Your task to perform on an android device: Turn on the flashlight Image 0: 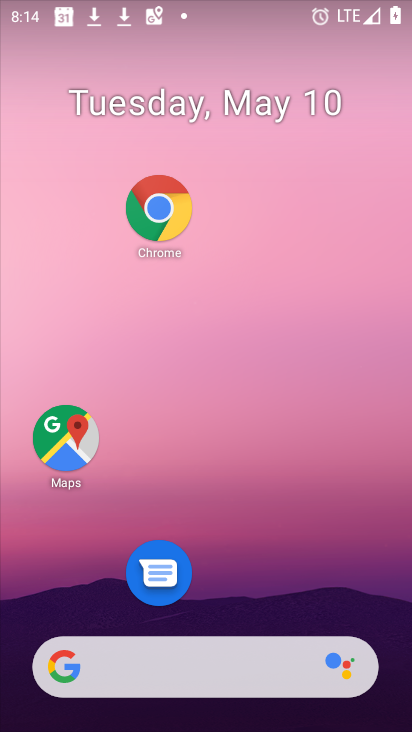
Step 0: drag from (315, 702) to (294, 294)
Your task to perform on an android device: Turn on the flashlight Image 1: 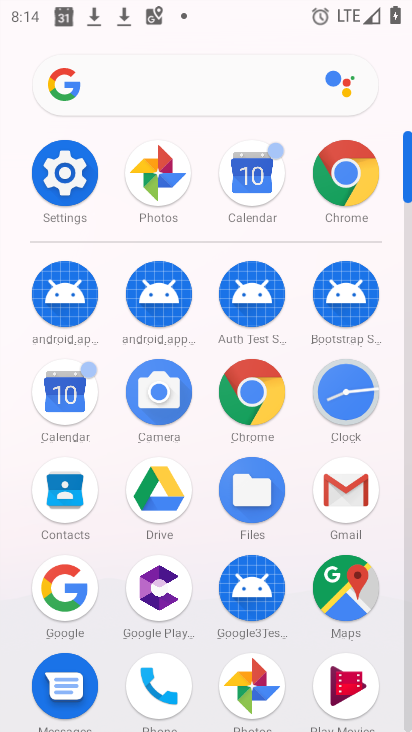
Step 1: click (66, 182)
Your task to perform on an android device: Turn on the flashlight Image 2: 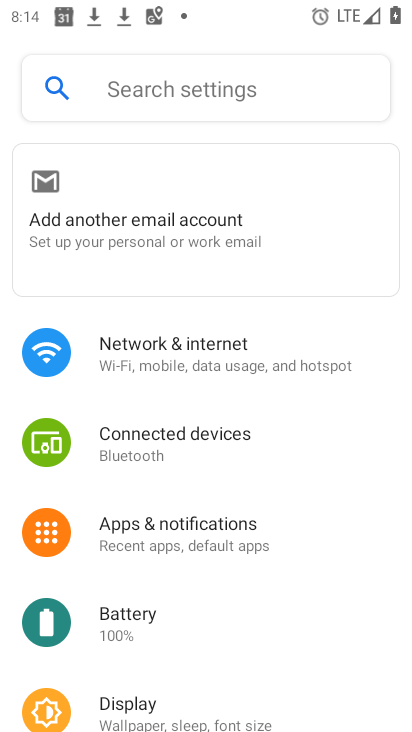
Step 2: click (133, 82)
Your task to perform on an android device: Turn on the flashlight Image 3: 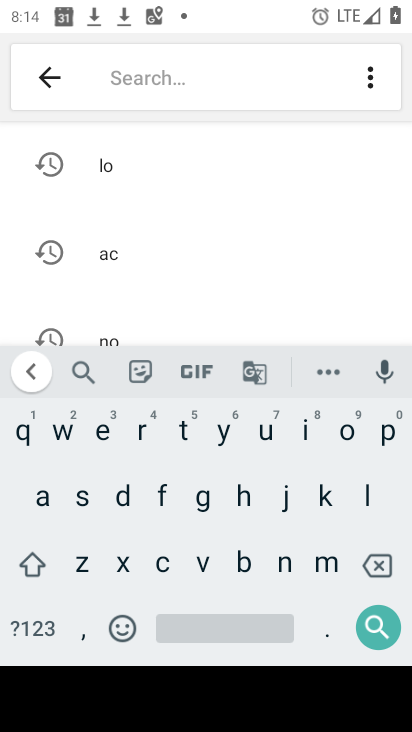
Step 3: click (165, 521)
Your task to perform on an android device: Turn on the flashlight Image 4: 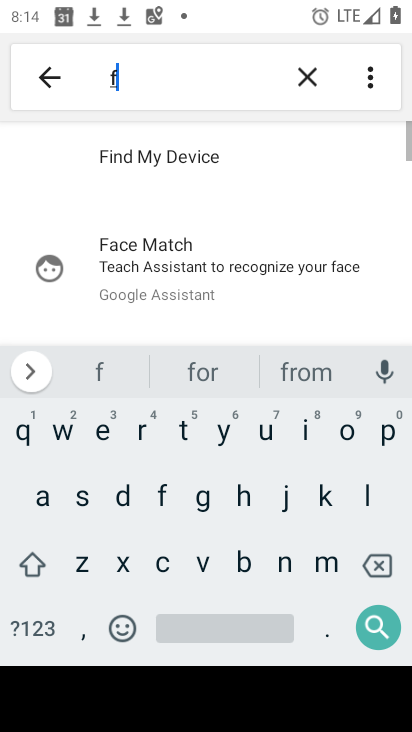
Step 4: click (376, 495)
Your task to perform on an android device: Turn on the flashlight Image 5: 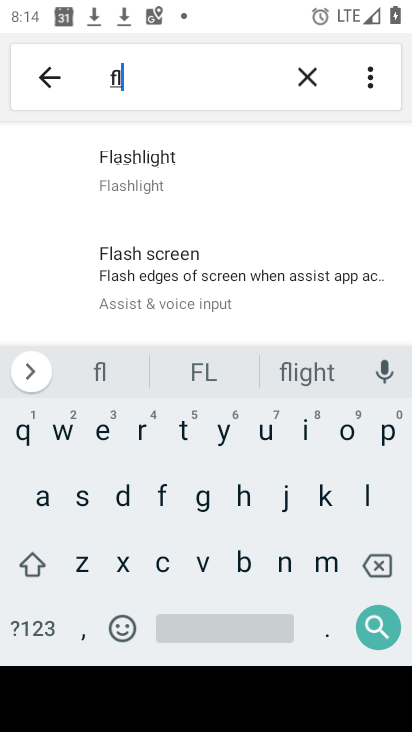
Step 5: click (131, 173)
Your task to perform on an android device: Turn on the flashlight Image 6: 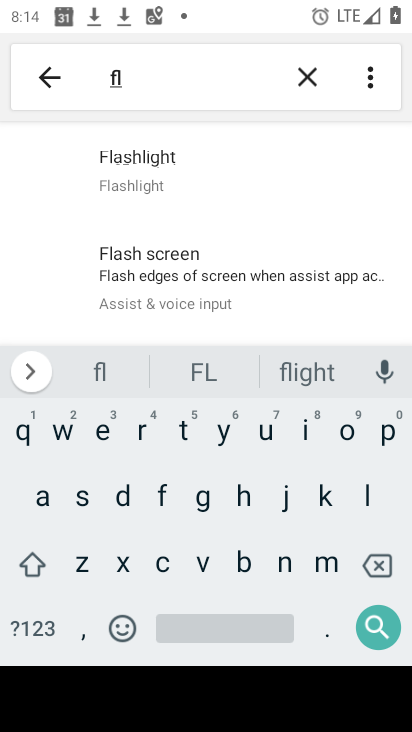
Step 6: task complete